Your task to perform on an android device: What is the recent news? Image 0: 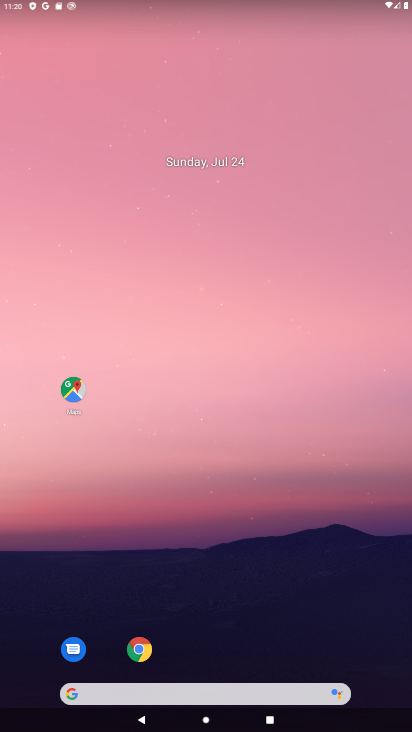
Step 0: press home button
Your task to perform on an android device: What is the recent news? Image 1: 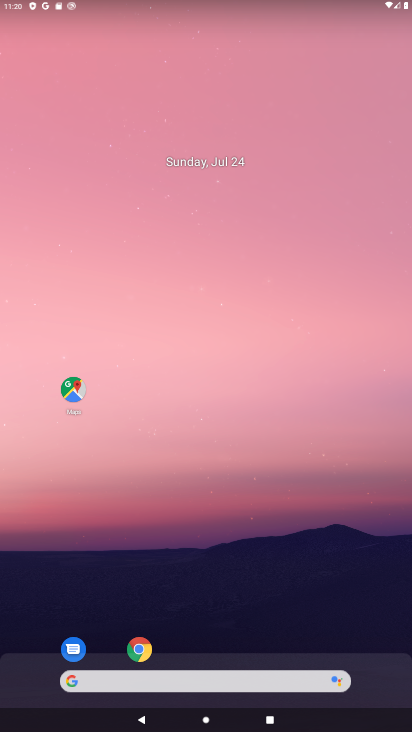
Step 1: task complete